Your task to perform on an android device: Check the weather Image 0: 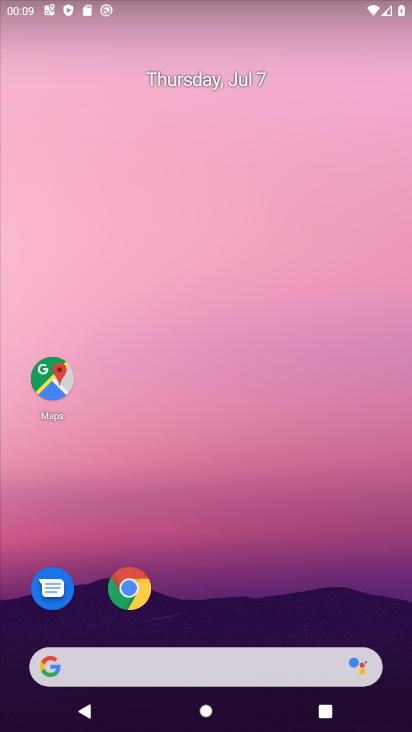
Step 0: drag from (226, 723) to (217, 163)
Your task to perform on an android device: Check the weather Image 1: 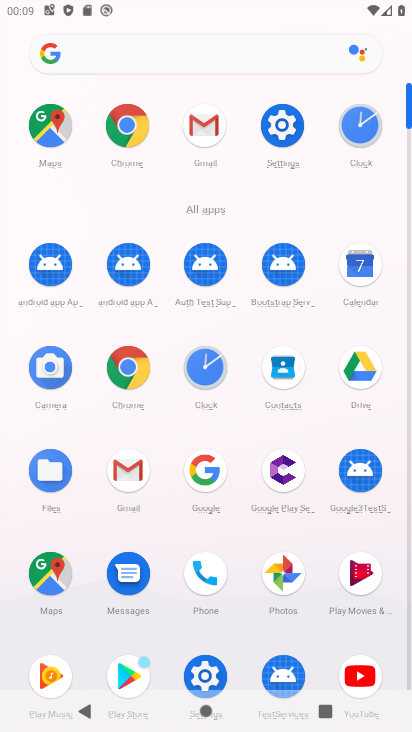
Step 1: click (208, 477)
Your task to perform on an android device: Check the weather Image 2: 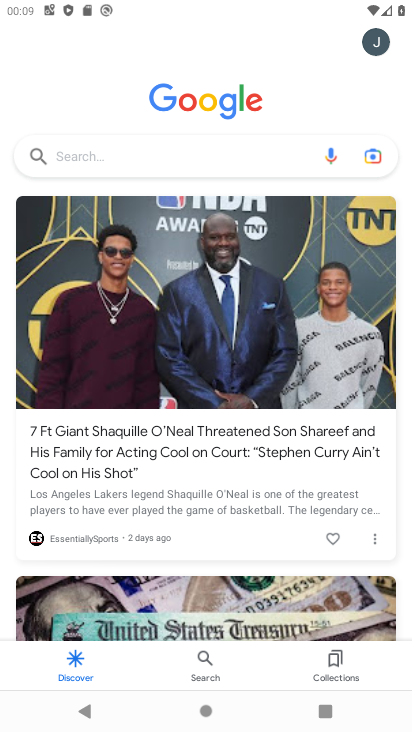
Step 2: click (77, 663)
Your task to perform on an android device: Check the weather Image 3: 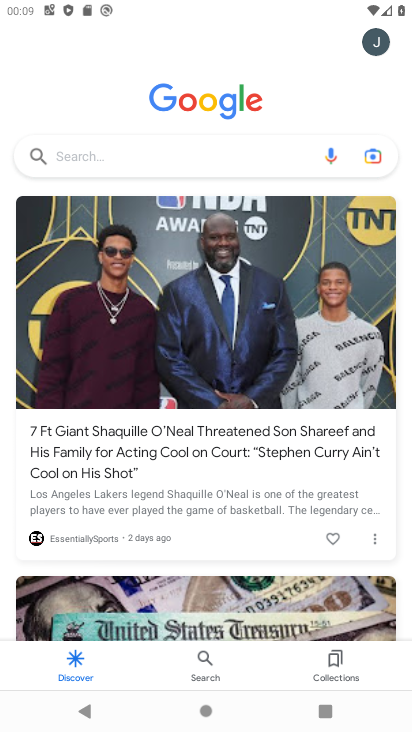
Step 3: drag from (255, 312) to (248, 601)
Your task to perform on an android device: Check the weather Image 4: 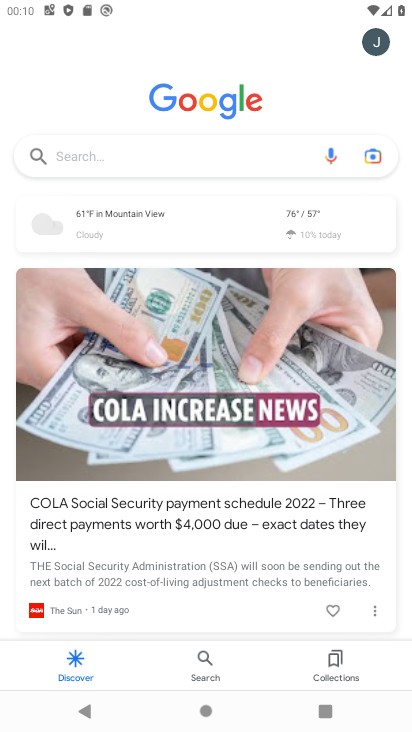
Step 4: click (112, 215)
Your task to perform on an android device: Check the weather Image 5: 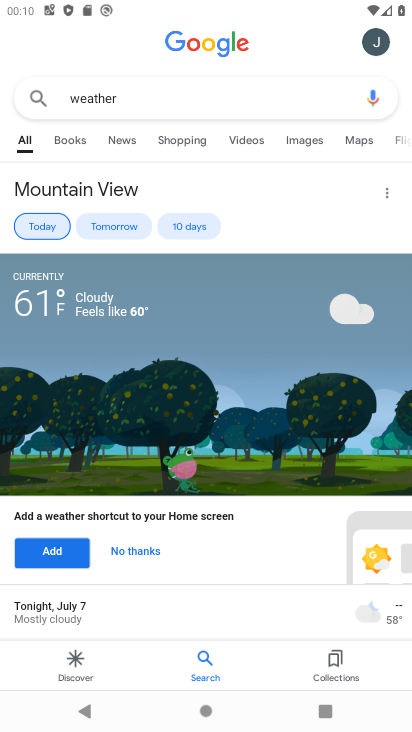
Step 5: click (44, 222)
Your task to perform on an android device: Check the weather Image 6: 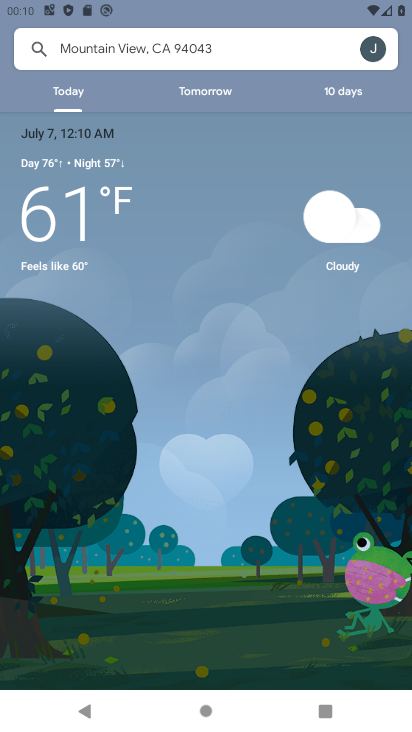
Step 6: task complete